Your task to perform on an android device: turn off javascript in the chrome app Image 0: 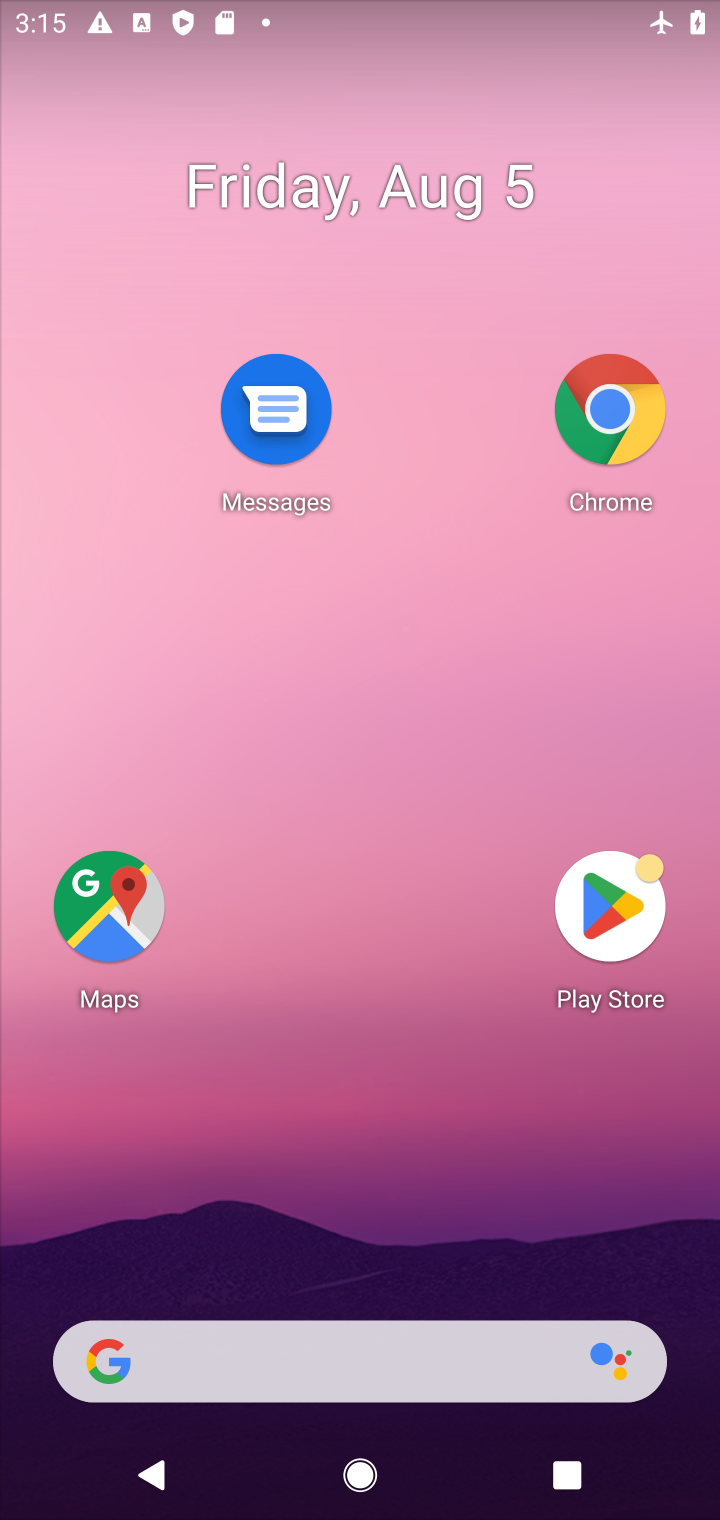
Step 0: click (587, 466)
Your task to perform on an android device: turn off javascript in the chrome app Image 1: 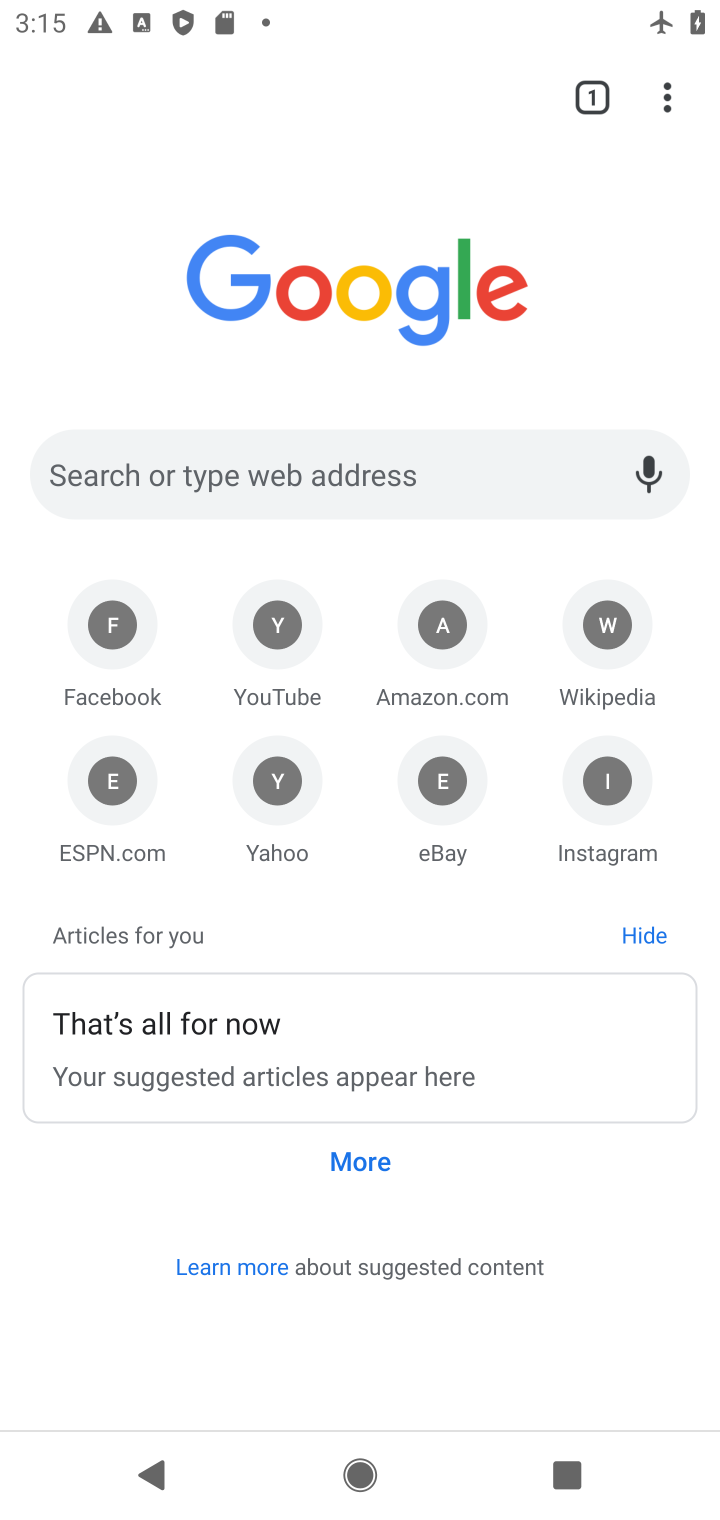
Step 1: drag from (674, 94) to (339, 807)
Your task to perform on an android device: turn off javascript in the chrome app Image 2: 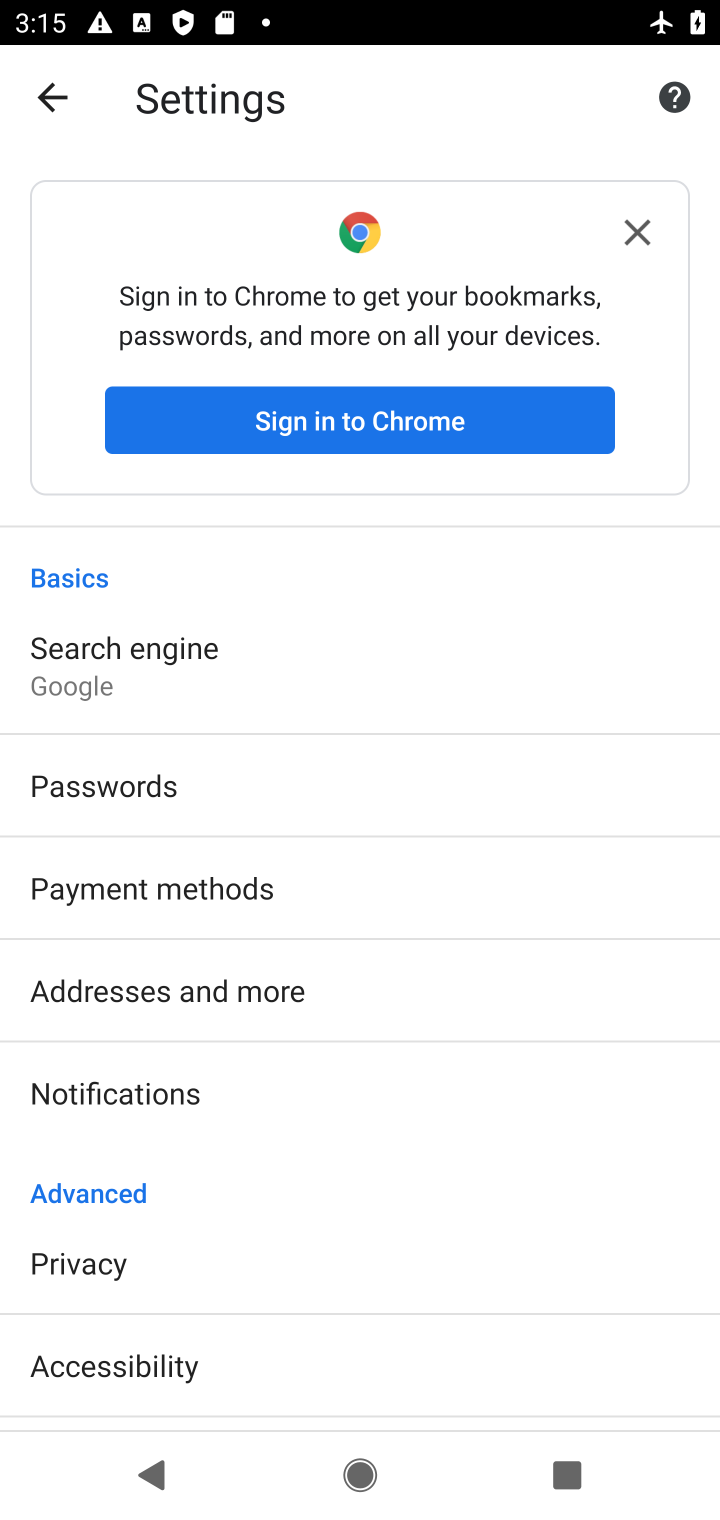
Step 2: drag from (276, 1212) to (314, 512)
Your task to perform on an android device: turn off javascript in the chrome app Image 3: 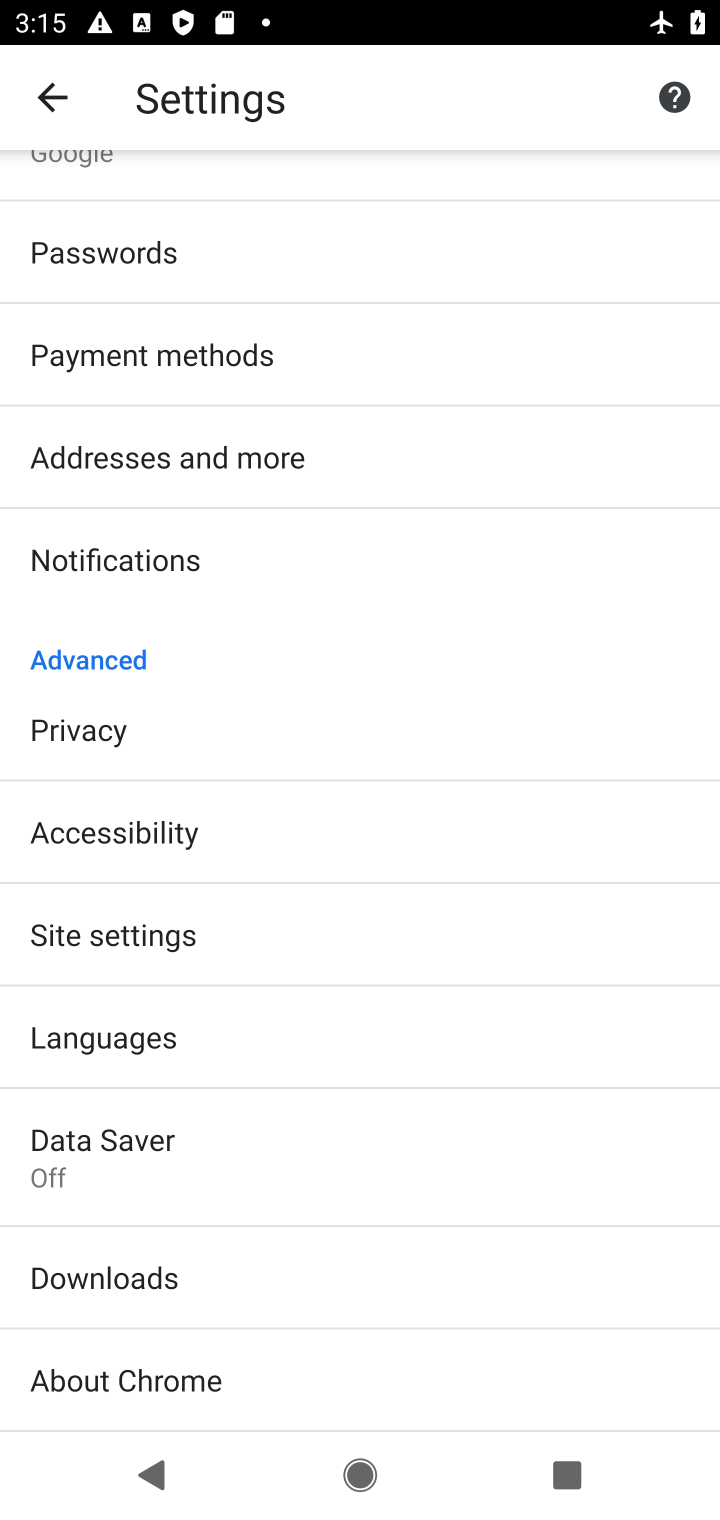
Step 3: click (138, 957)
Your task to perform on an android device: turn off javascript in the chrome app Image 4: 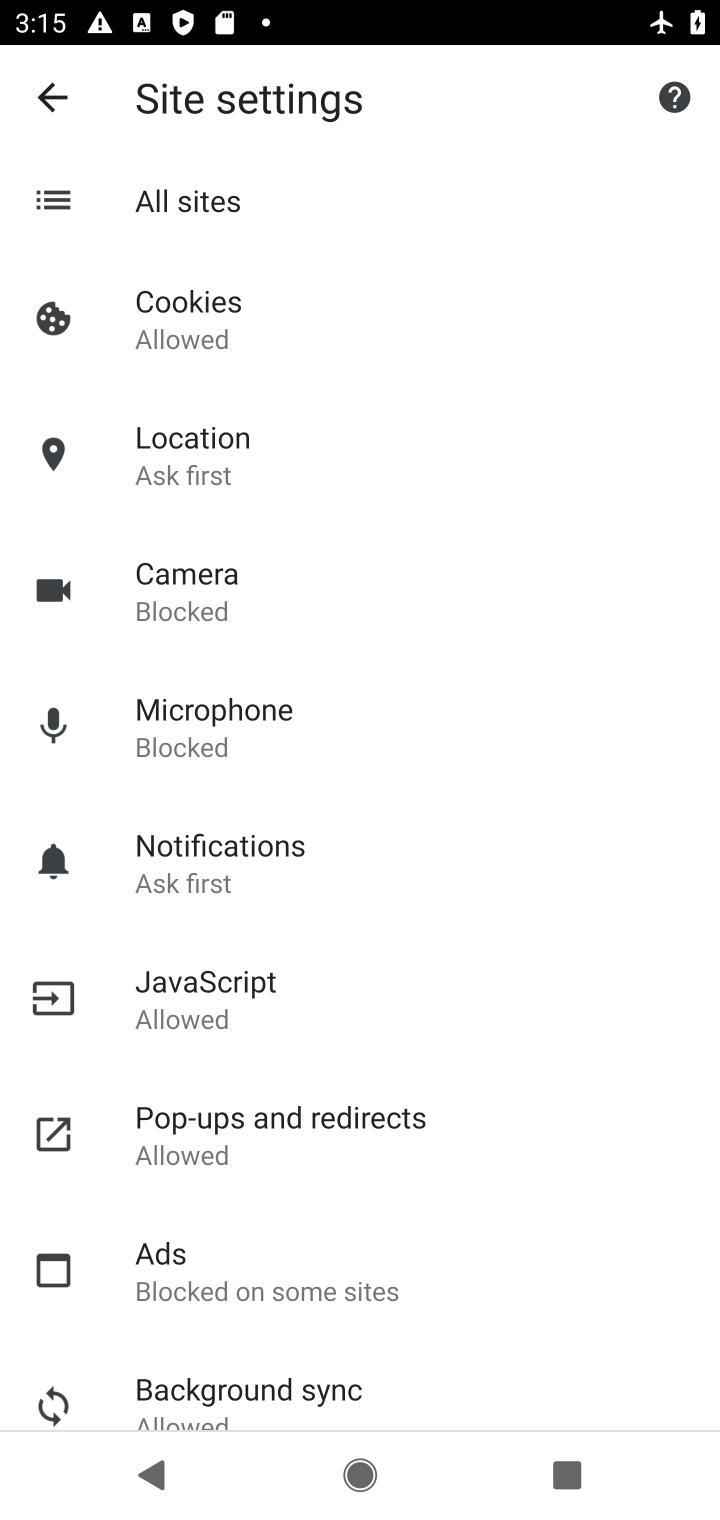
Step 4: click (236, 1002)
Your task to perform on an android device: turn off javascript in the chrome app Image 5: 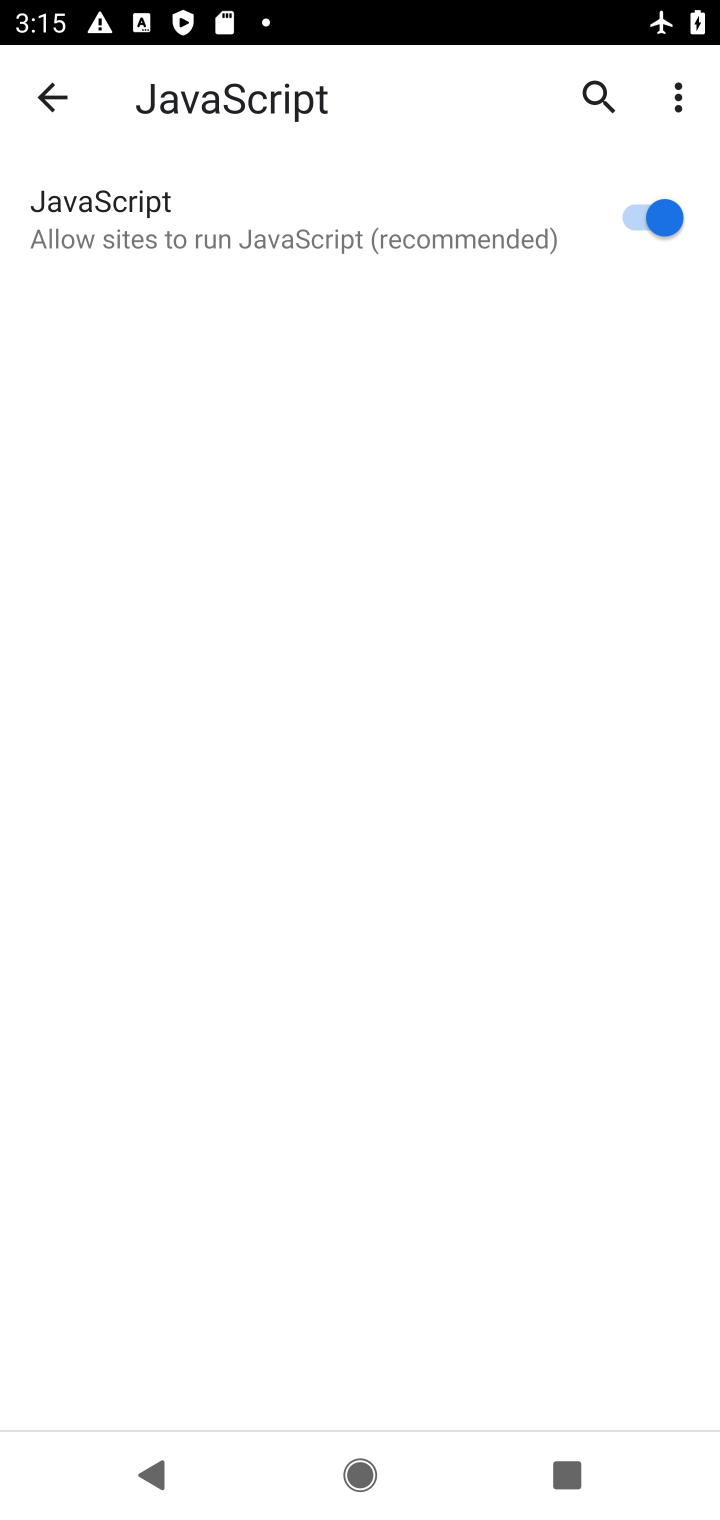
Step 5: click (612, 224)
Your task to perform on an android device: turn off javascript in the chrome app Image 6: 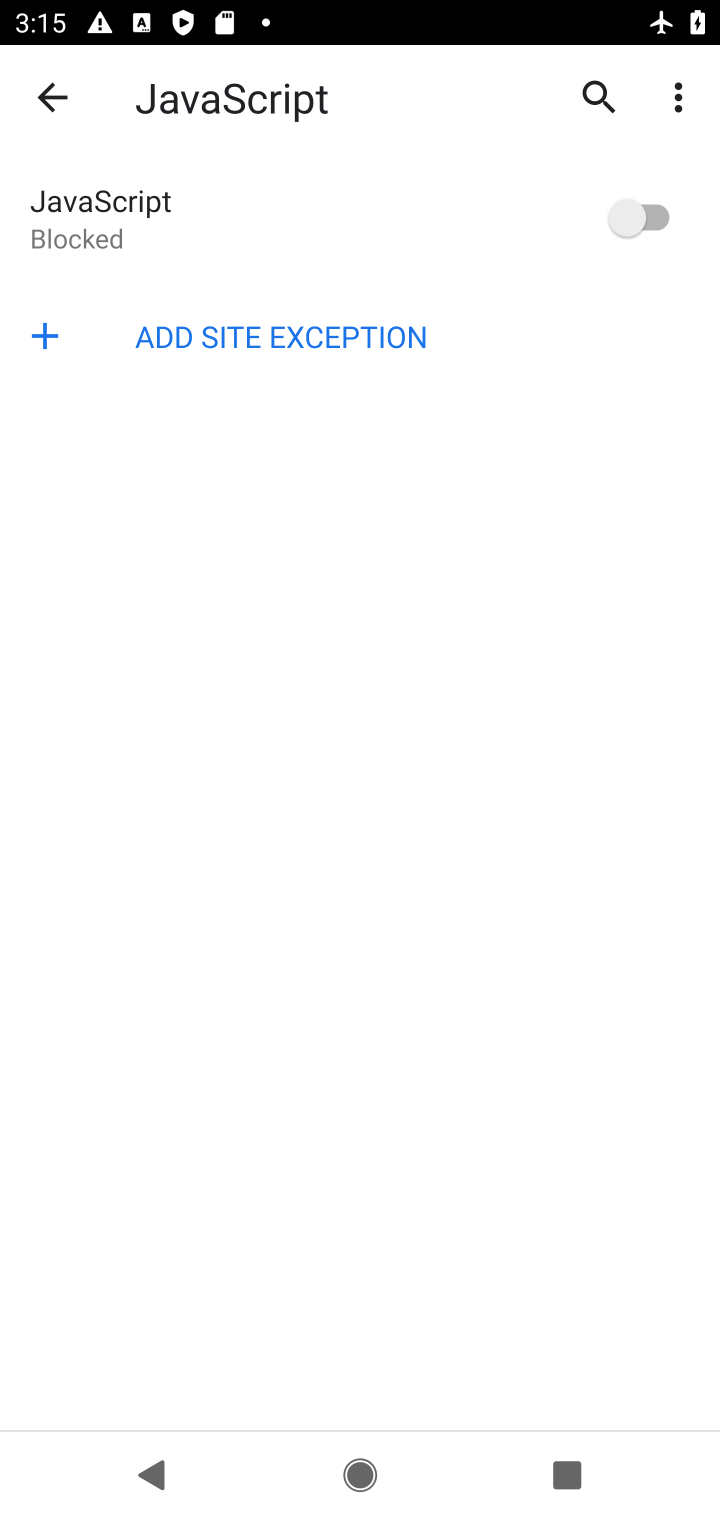
Step 6: task complete